Your task to perform on an android device: Open maps Image 0: 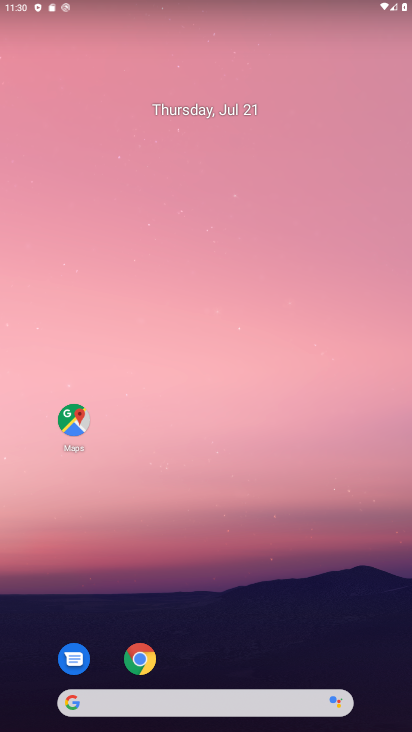
Step 0: click (72, 427)
Your task to perform on an android device: Open maps Image 1: 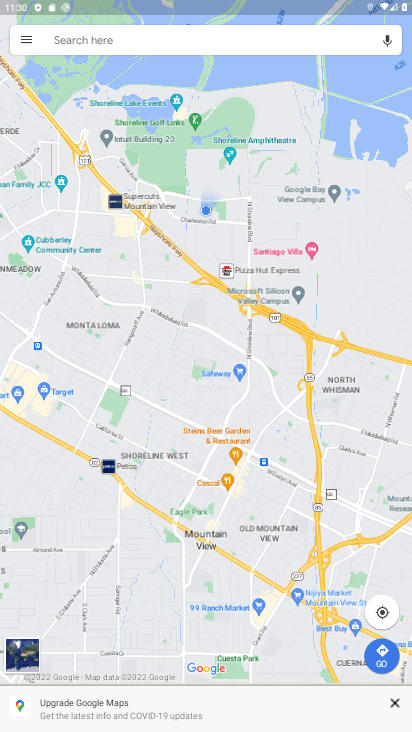
Step 1: task complete